Your task to perform on an android device: Show me productivity apps on the Play Store Image 0: 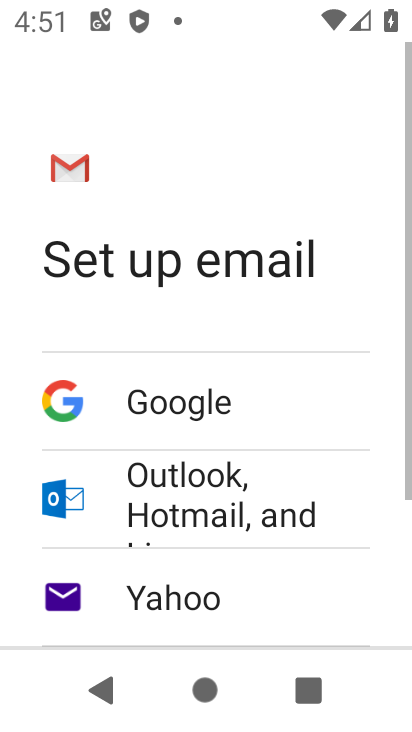
Step 0: press home button
Your task to perform on an android device: Show me productivity apps on the Play Store Image 1: 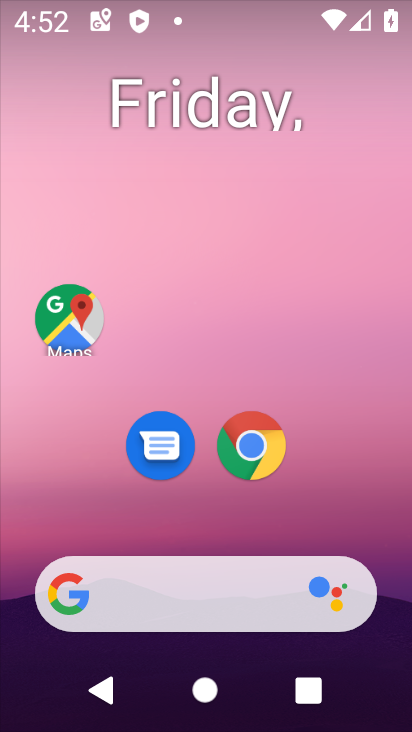
Step 1: drag from (308, 519) to (305, 15)
Your task to perform on an android device: Show me productivity apps on the Play Store Image 2: 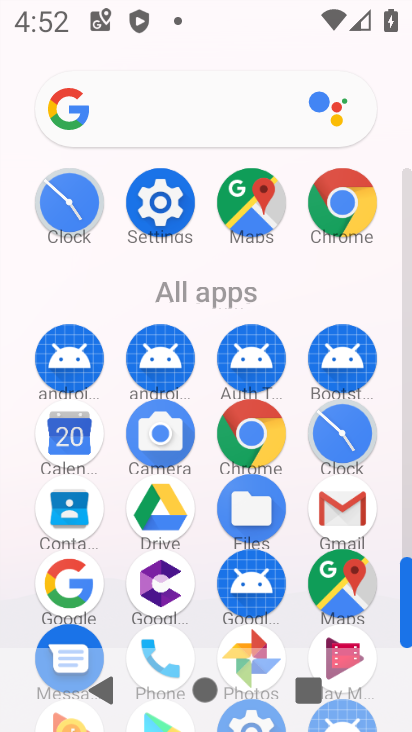
Step 2: drag from (400, 582) to (412, 731)
Your task to perform on an android device: Show me productivity apps on the Play Store Image 3: 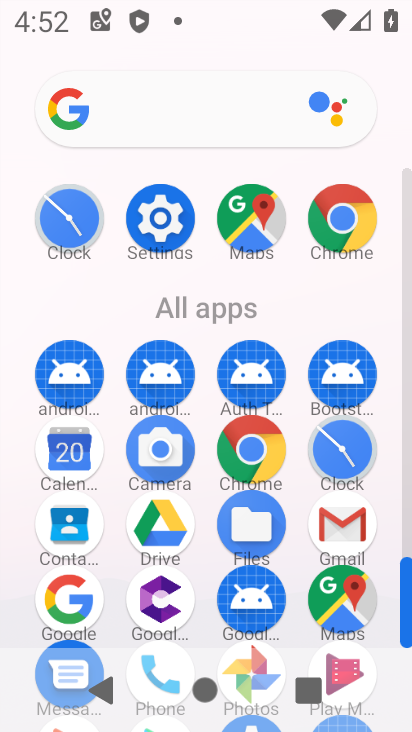
Step 3: click (412, 727)
Your task to perform on an android device: Show me productivity apps on the Play Store Image 4: 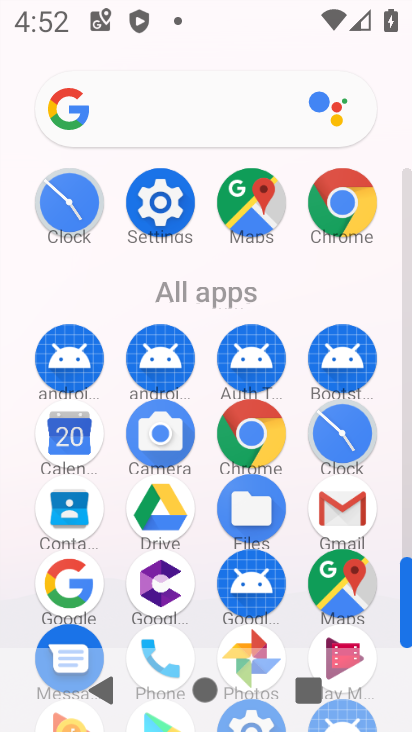
Step 4: drag from (408, 590) to (408, 727)
Your task to perform on an android device: Show me productivity apps on the Play Store Image 5: 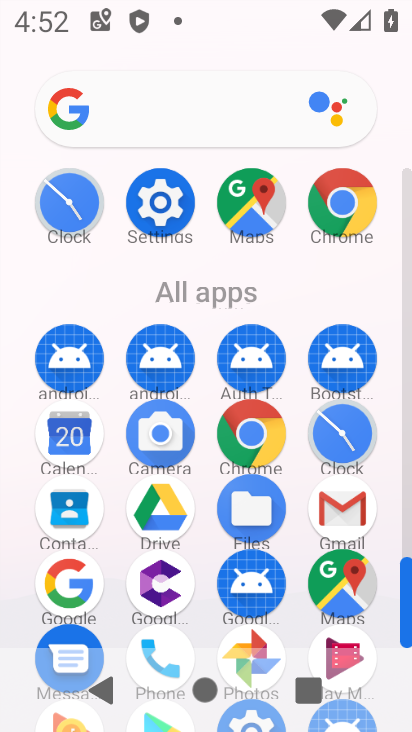
Step 5: drag from (403, 624) to (406, 727)
Your task to perform on an android device: Show me productivity apps on the Play Store Image 6: 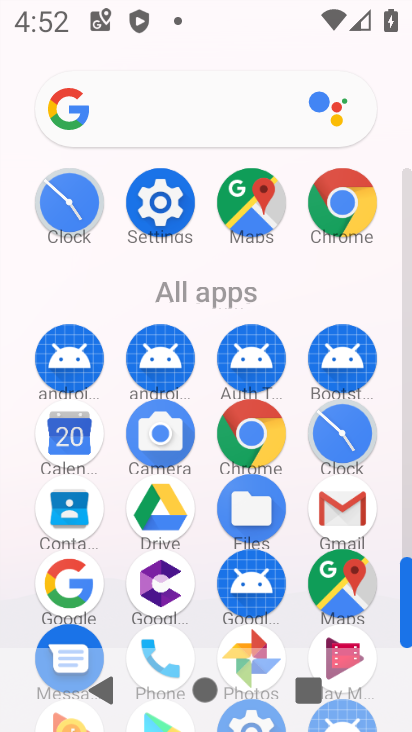
Step 6: drag from (407, 640) to (409, 350)
Your task to perform on an android device: Show me productivity apps on the Play Store Image 7: 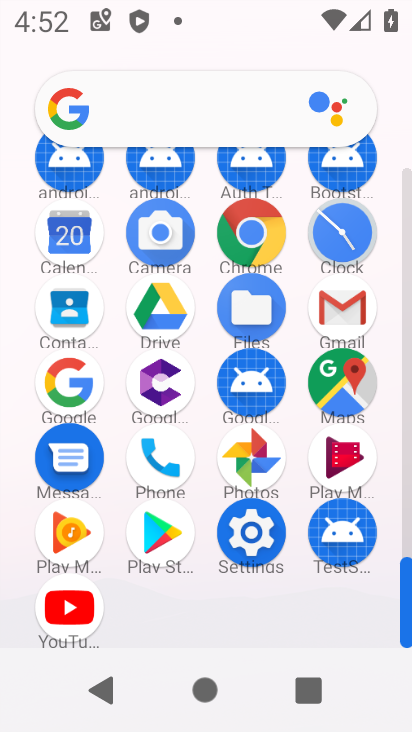
Step 7: click (157, 564)
Your task to perform on an android device: Show me productivity apps on the Play Store Image 8: 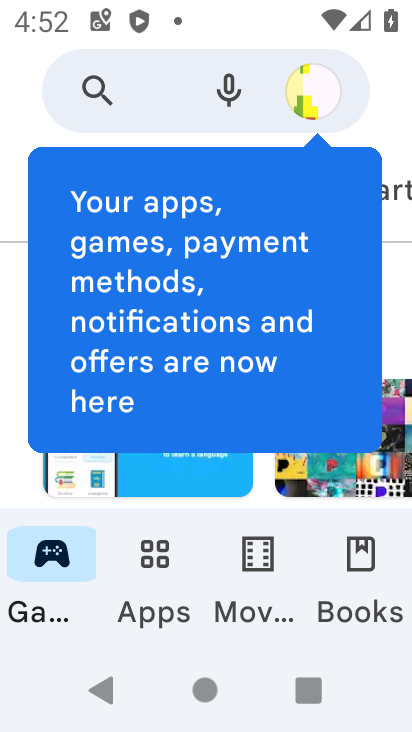
Step 8: click (162, 526)
Your task to perform on an android device: Show me productivity apps on the Play Store Image 9: 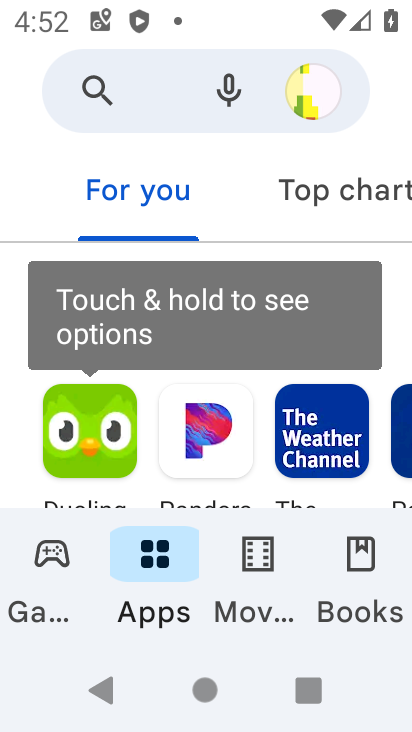
Step 9: click (299, 204)
Your task to perform on an android device: Show me productivity apps on the Play Store Image 10: 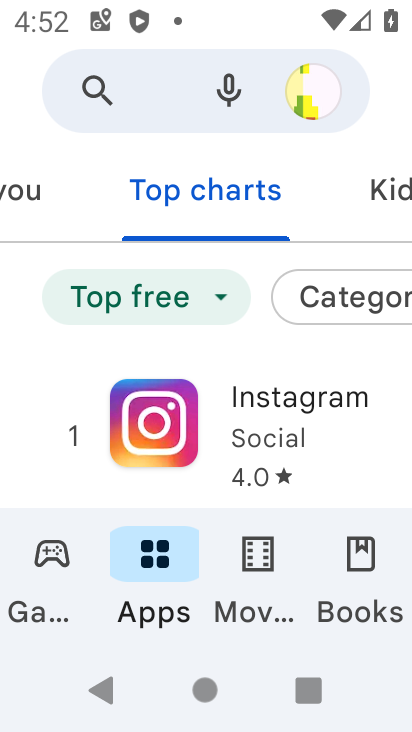
Step 10: click (351, 310)
Your task to perform on an android device: Show me productivity apps on the Play Store Image 11: 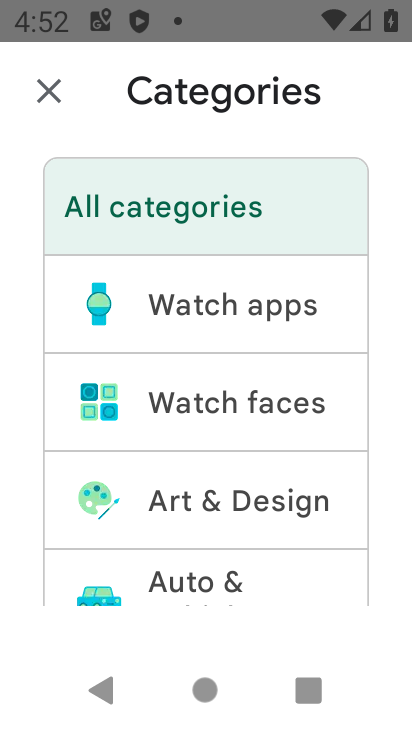
Step 11: drag from (217, 606) to (274, 64)
Your task to perform on an android device: Show me productivity apps on the Play Store Image 12: 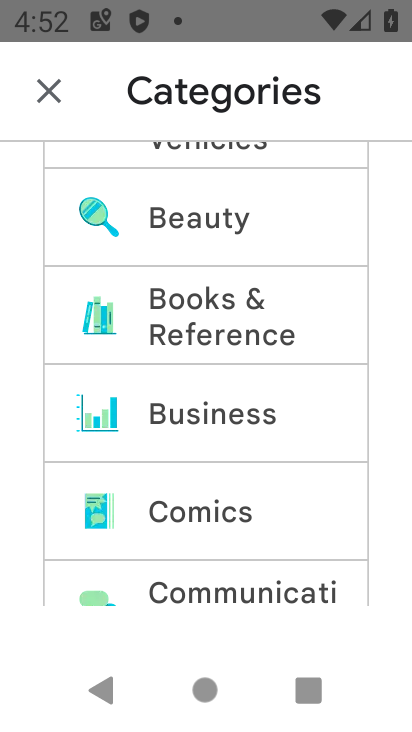
Step 12: drag from (225, 559) to (322, 83)
Your task to perform on an android device: Show me productivity apps on the Play Store Image 13: 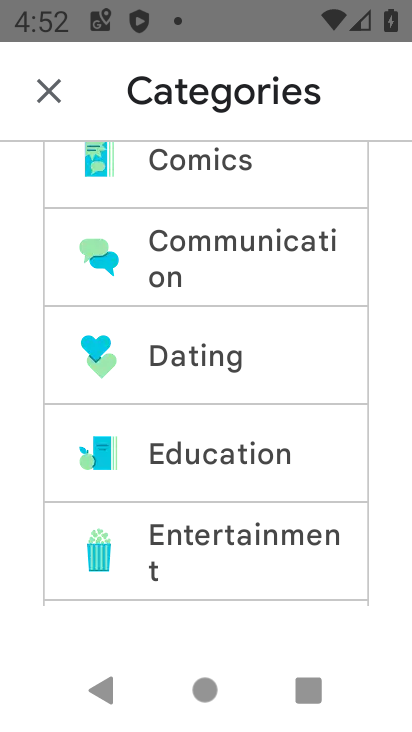
Step 13: drag from (257, 346) to (277, 224)
Your task to perform on an android device: Show me productivity apps on the Play Store Image 14: 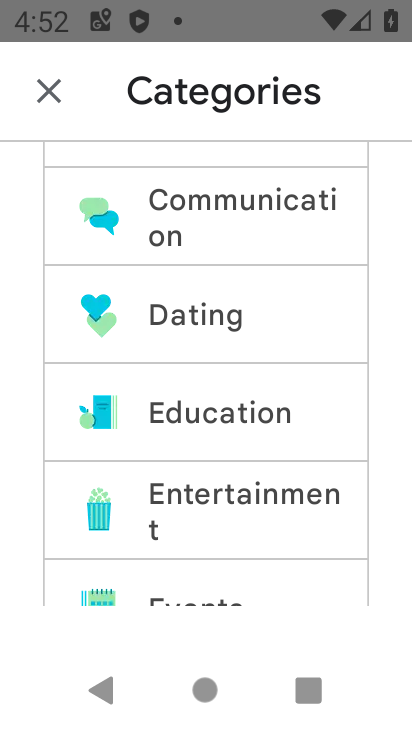
Step 14: click (278, 221)
Your task to perform on an android device: Show me productivity apps on the Play Store Image 15: 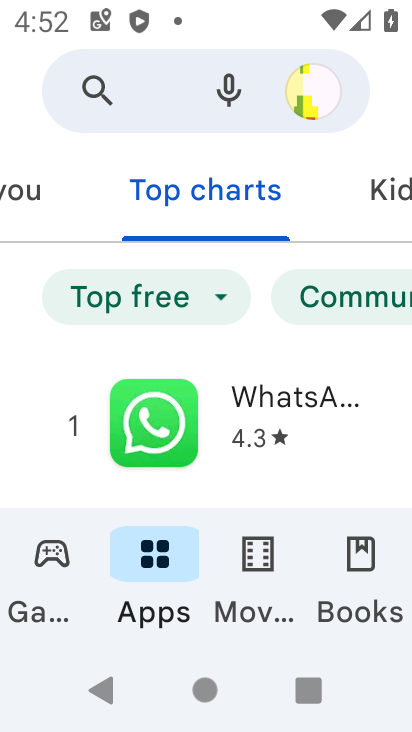
Step 15: task complete